Your task to perform on an android device: How big is a tiger? Image 0: 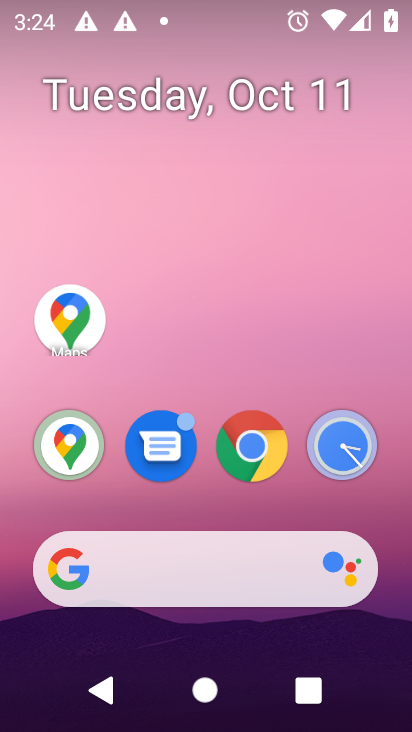
Step 0: click (254, 463)
Your task to perform on an android device: How big is a tiger? Image 1: 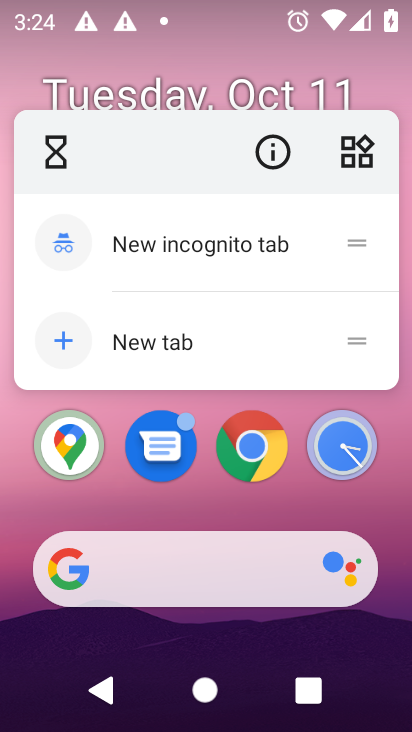
Step 1: click (254, 444)
Your task to perform on an android device: How big is a tiger? Image 2: 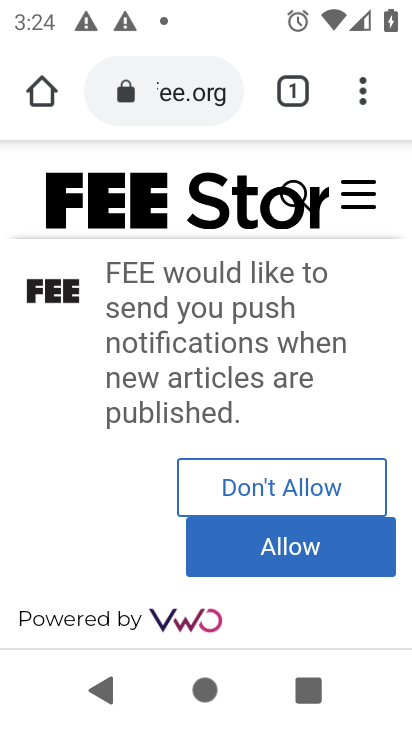
Step 2: click (162, 100)
Your task to perform on an android device: How big is a tiger? Image 3: 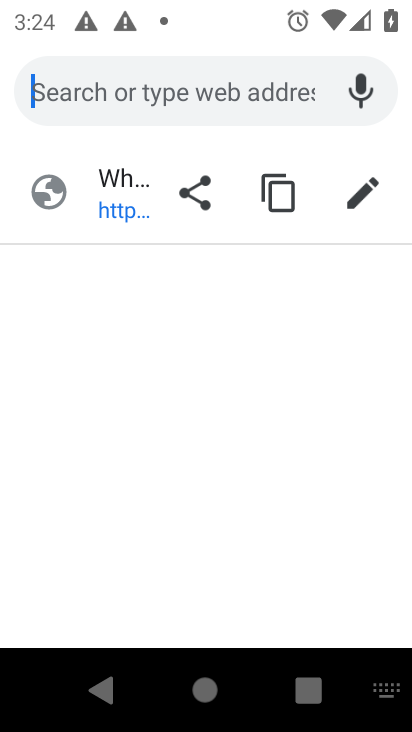
Step 3: type "How big is a tiger?"
Your task to perform on an android device: How big is a tiger? Image 4: 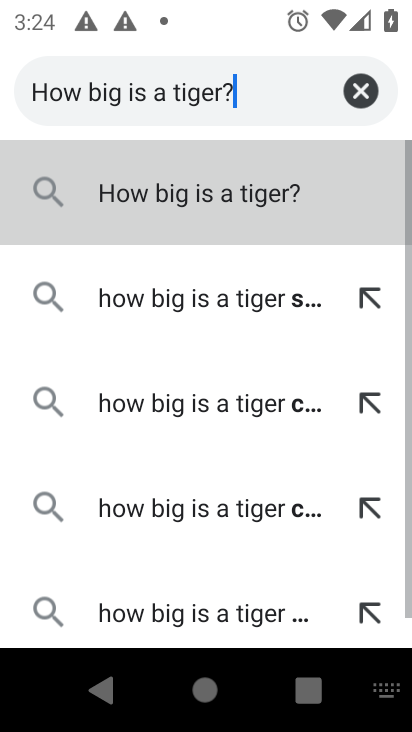
Step 4: click (155, 204)
Your task to perform on an android device: How big is a tiger? Image 5: 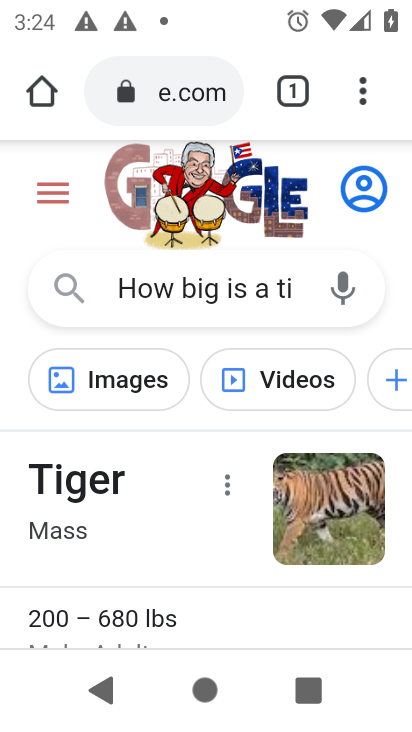
Step 5: task complete